Your task to perform on an android device: turn on improve location accuracy Image 0: 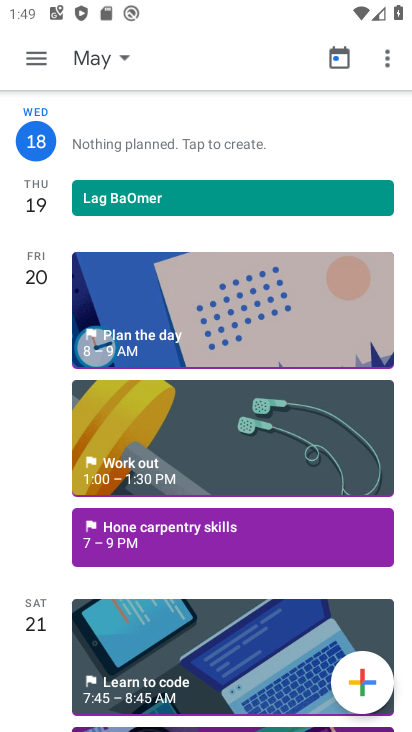
Step 0: press home button
Your task to perform on an android device: turn on improve location accuracy Image 1: 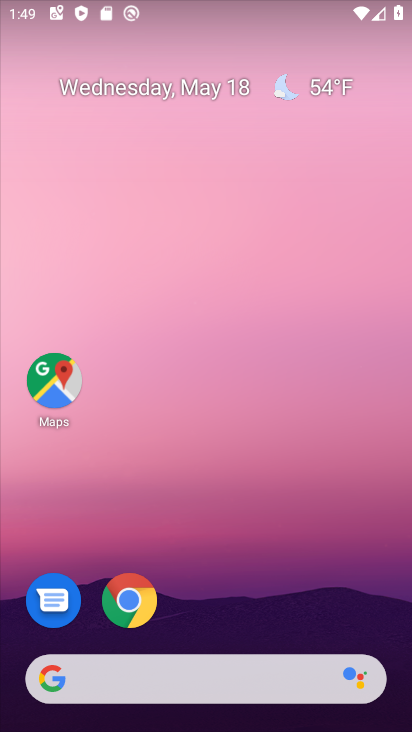
Step 1: drag from (183, 636) to (218, 121)
Your task to perform on an android device: turn on improve location accuracy Image 2: 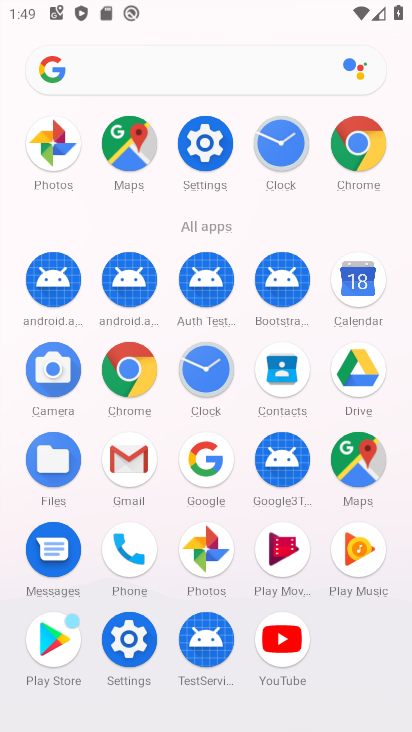
Step 2: click (204, 130)
Your task to perform on an android device: turn on improve location accuracy Image 3: 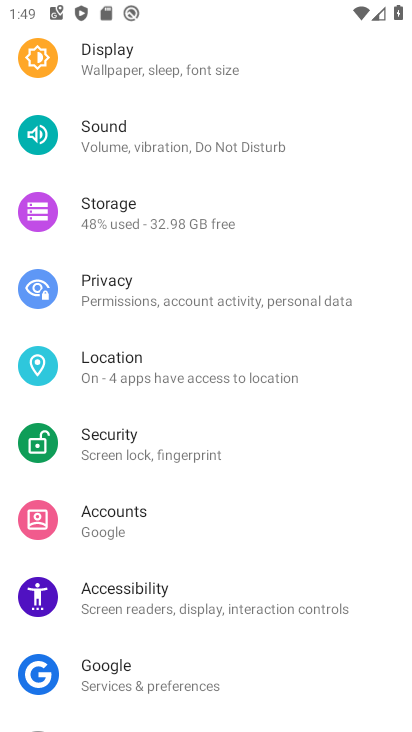
Step 3: click (155, 373)
Your task to perform on an android device: turn on improve location accuracy Image 4: 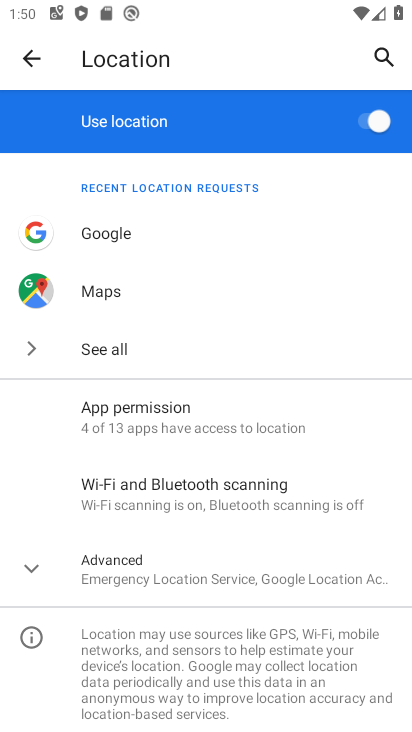
Step 4: click (137, 578)
Your task to perform on an android device: turn on improve location accuracy Image 5: 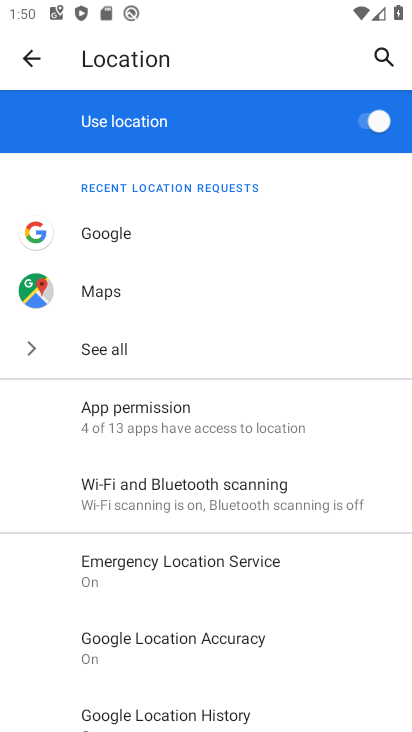
Step 5: task complete